Your task to perform on an android device: turn off airplane mode Image 0: 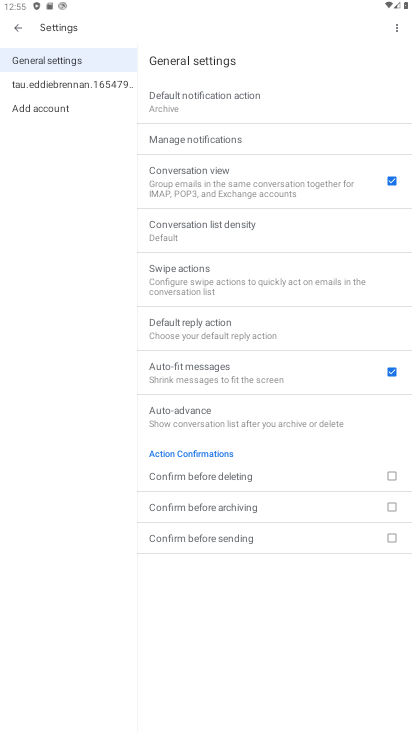
Step 0: press home button
Your task to perform on an android device: turn off airplane mode Image 1: 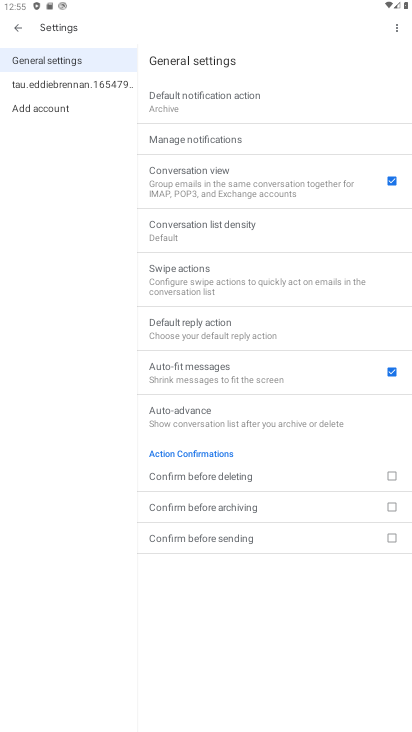
Step 1: press home button
Your task to perform on an android device: turn off airplane mode Image 2: 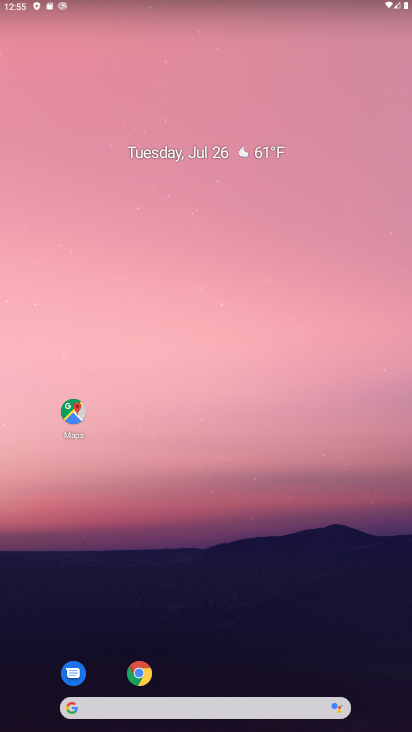
Step 2: drag from (129, 542) to (215, 211)
Your task to perform on an android device: turn off airplane mode Image 3: 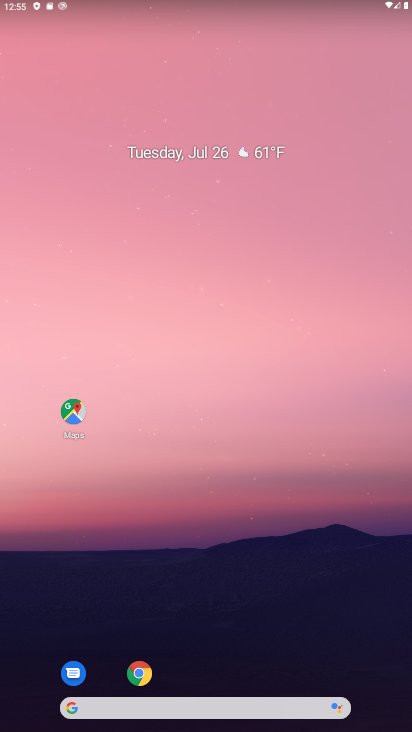
Step 3: drag from (148, 673) to (232, 226)
Your task to perform on an android device: turn off airplane mode Image 4: 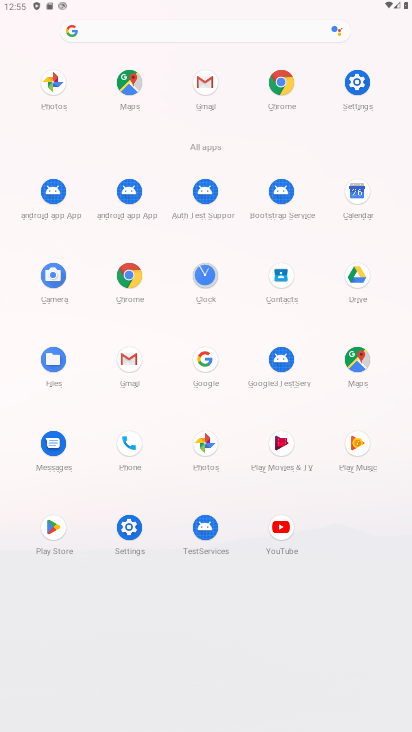
Step 4: click (363, 84)
Your task to perform on an android device: turn off airplane mode Image 5: 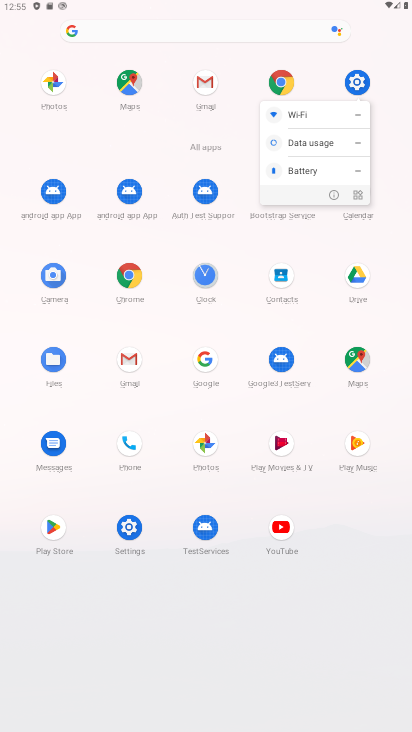
Step 5: click (330, 193)
Your task to perform on an android device: turn off airplane mode Image 6: 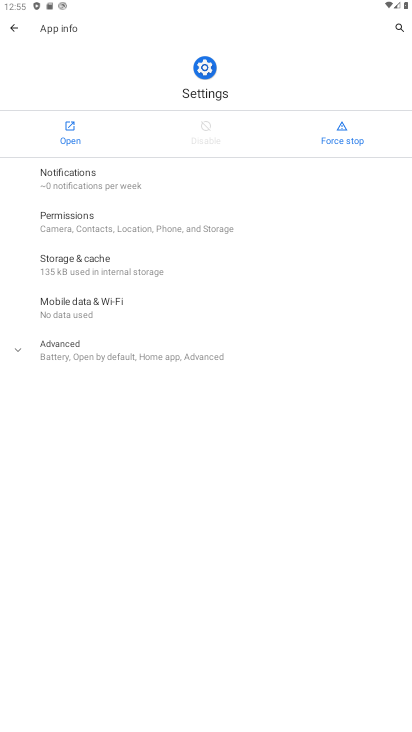
Step 6: click (70, 137)
Your task to perform on an android device: turn off airplane mode Image 7: 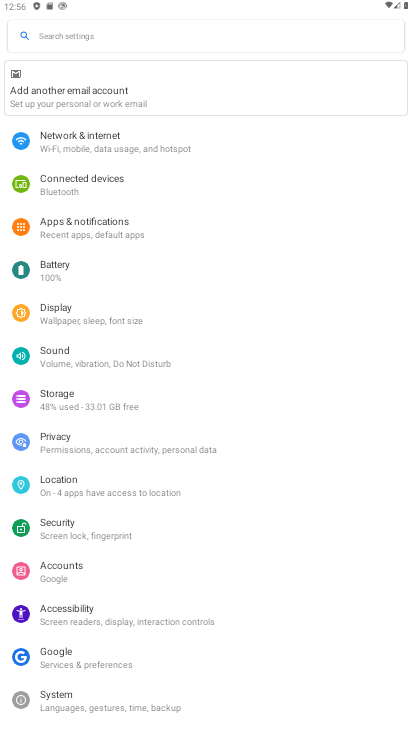
Step 7: click (76, 140)
Your task to perform on an android device: turn off airplane mode Image 8: 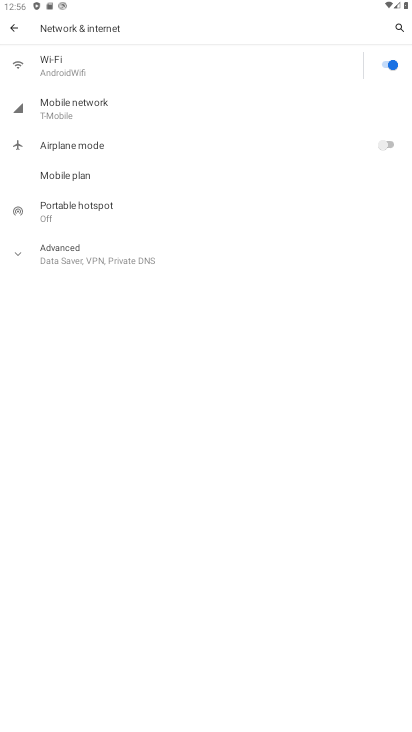
Step 8: task complete